Your task to perform on an android device: Go to display settings Image 0: 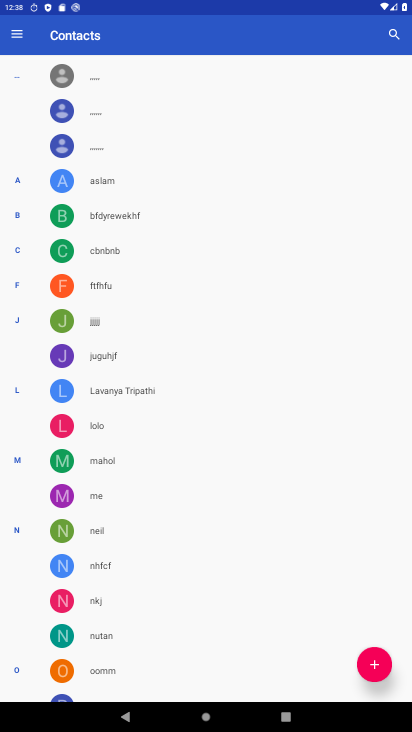
Step 0: press home button
Your task to perform on an android device: Go to display settings Image 1: 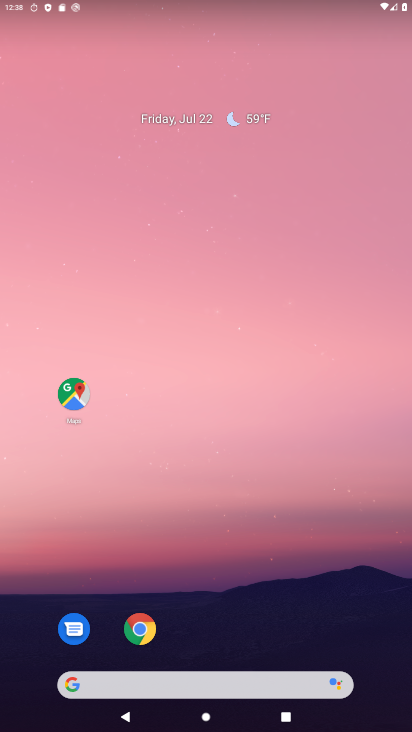
Step 1: drag from (251, 681) to (263, 109)
Your task to perform on an android device: Go to display settings Image 2: 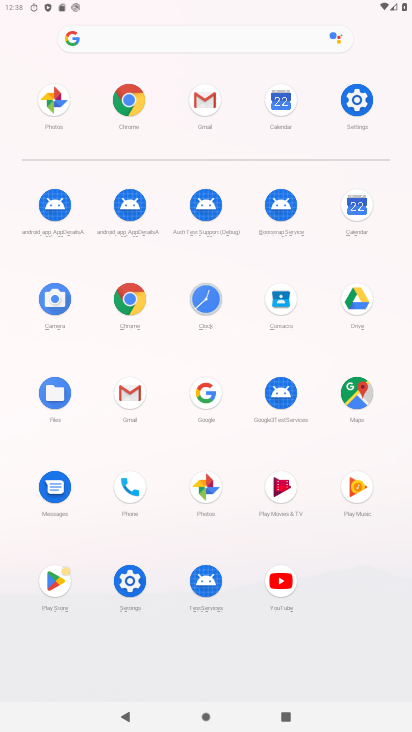
Step 2: click (353, 102)
Your task to perform on an android device: Go to display settings Image 3: 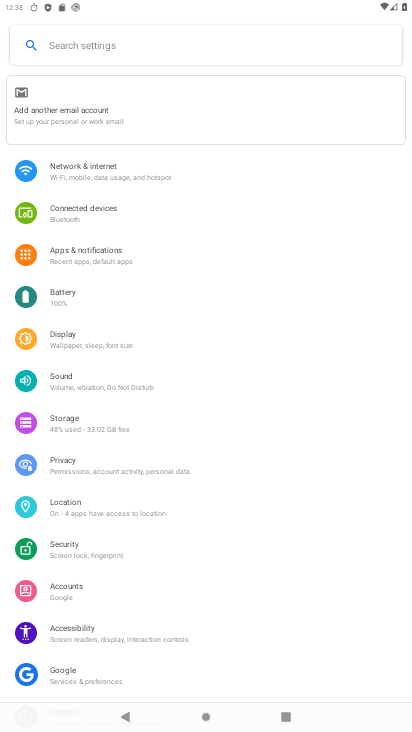
Step 3: click (87, 336)
Your task to perform on an android device: Go to display settings Image 4: 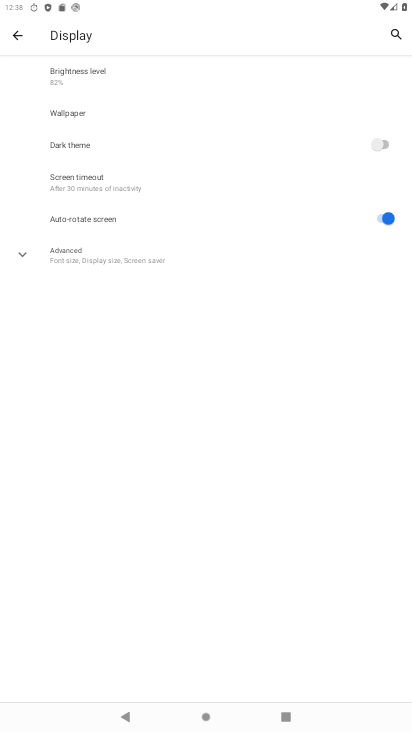
Step 4: task complete